Your task to perform on an android device: all mails in gmail Image 0: 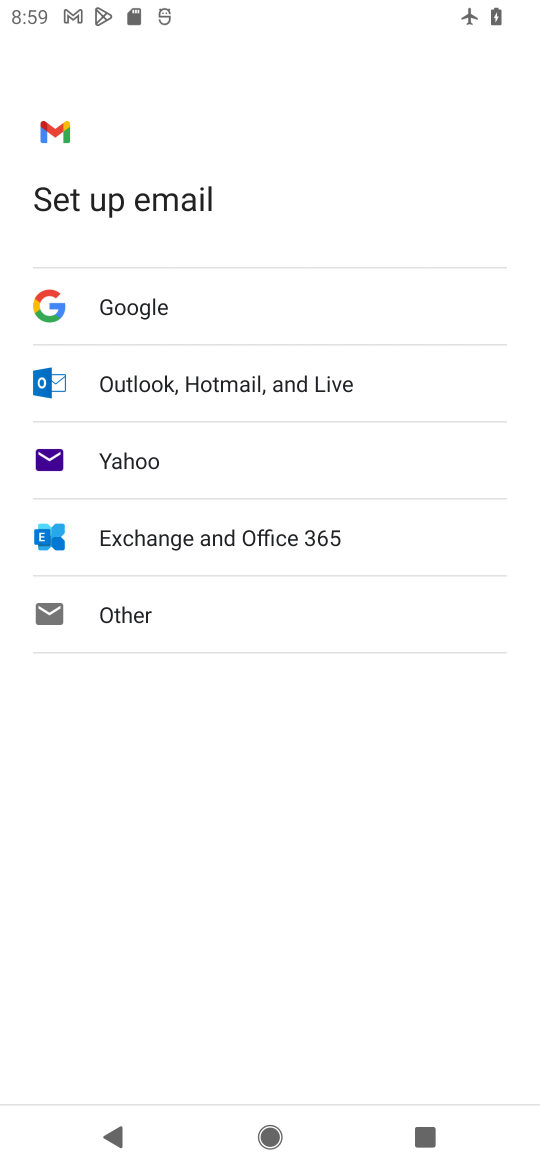
Step 0: press home button
Your task to perform on an android device: all mails in gmail Image 1: 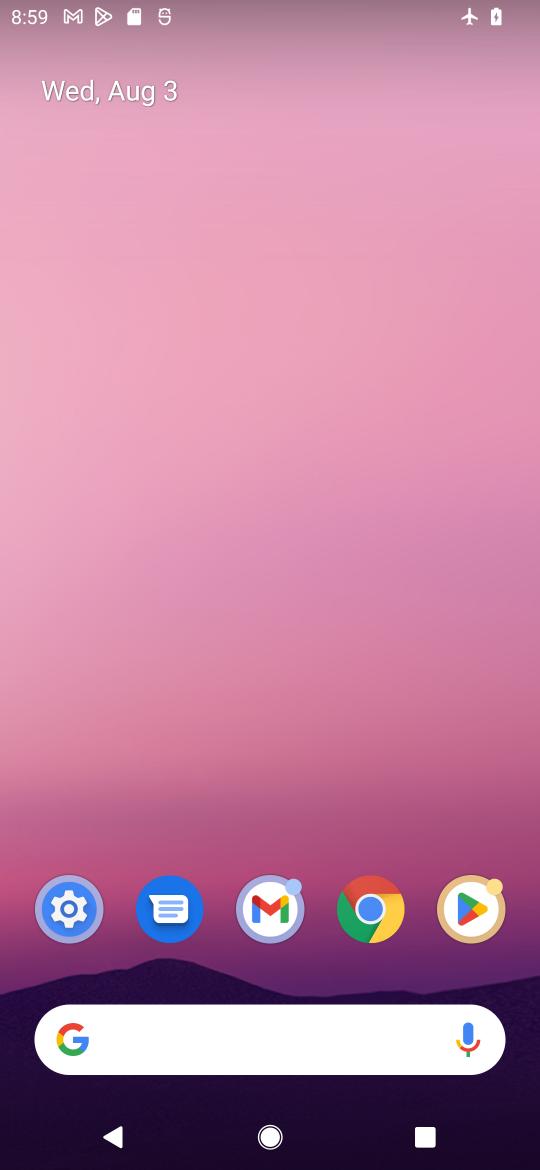
Step 1: drag from (307, 800) to (342, 322)
Your task to perform on an android device: all mails in gmail Image 2: 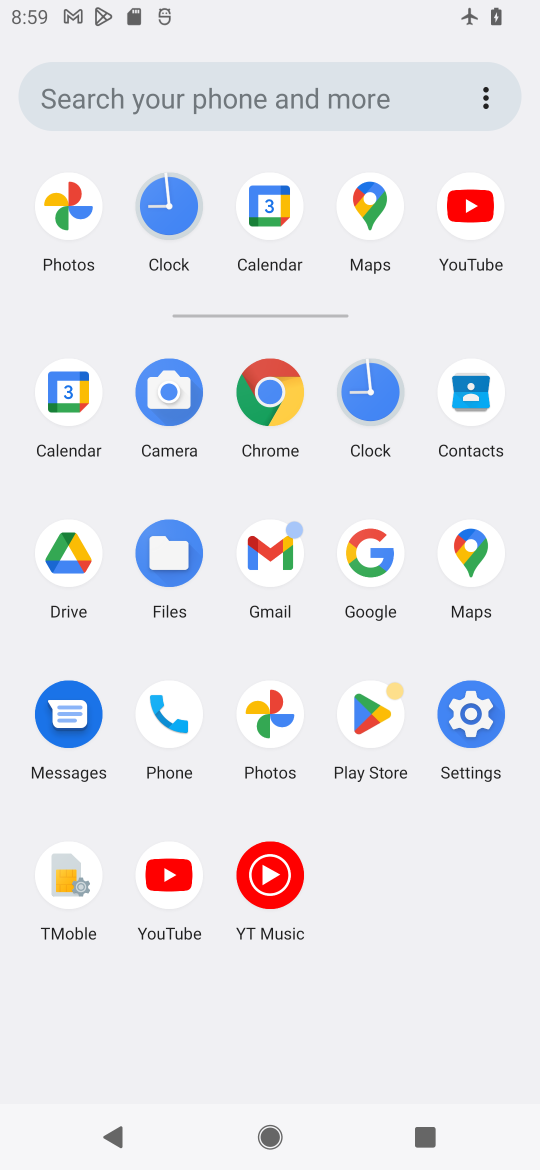
Step 2: click (277, 575)
Your task to perform on an android device: all mails in gmail Image 3: 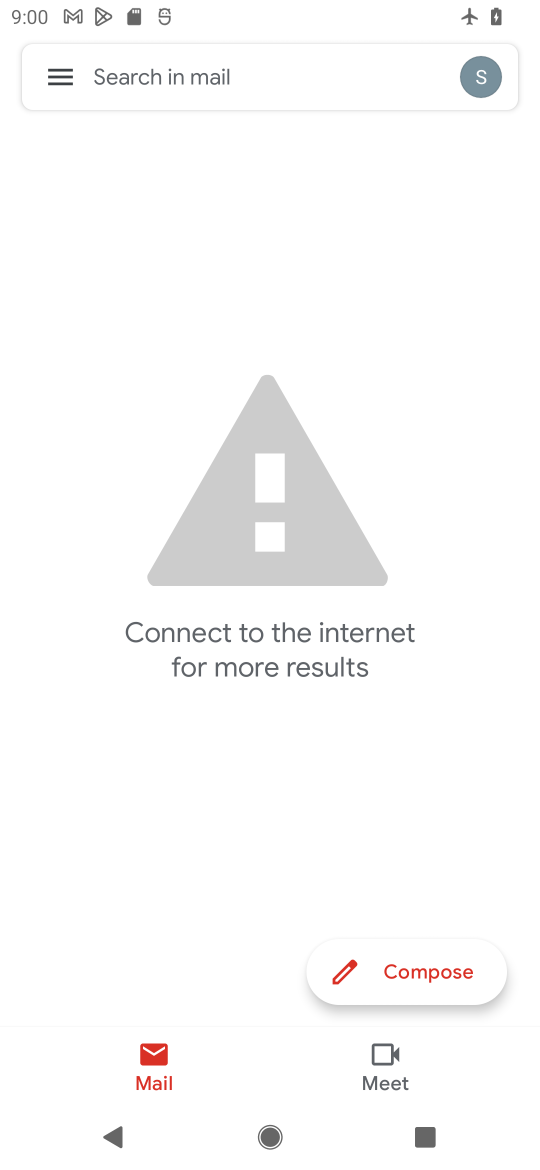
Step 3: click (62, 74)
Your task to perform on an android device: all mails in gmail Image 4: 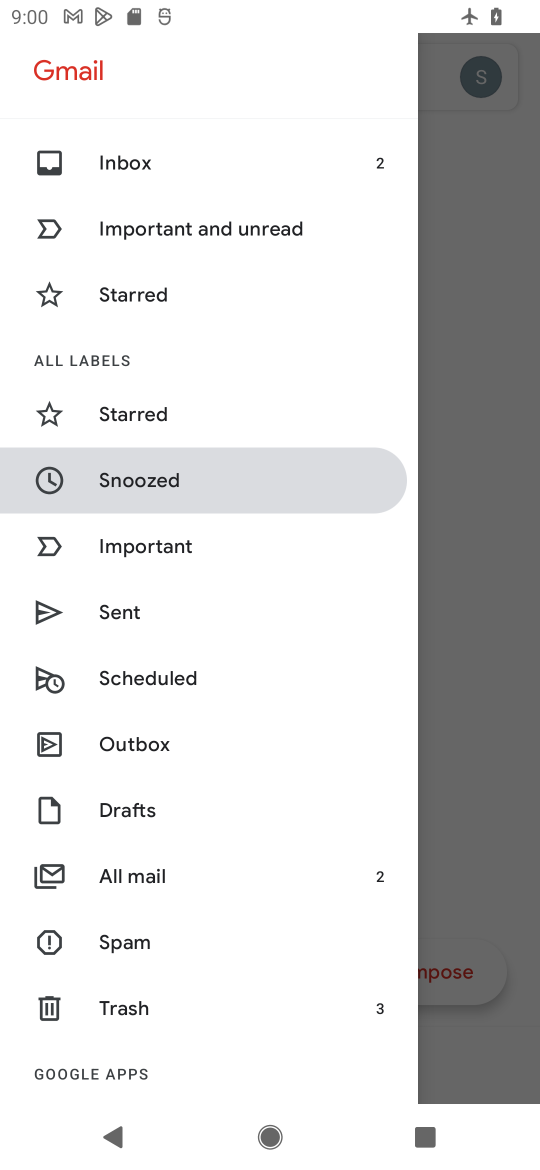
Step 4: drag from (296, 727) to (301, 522)
Your task to perform on an android device: all mails in gmail Image 5: 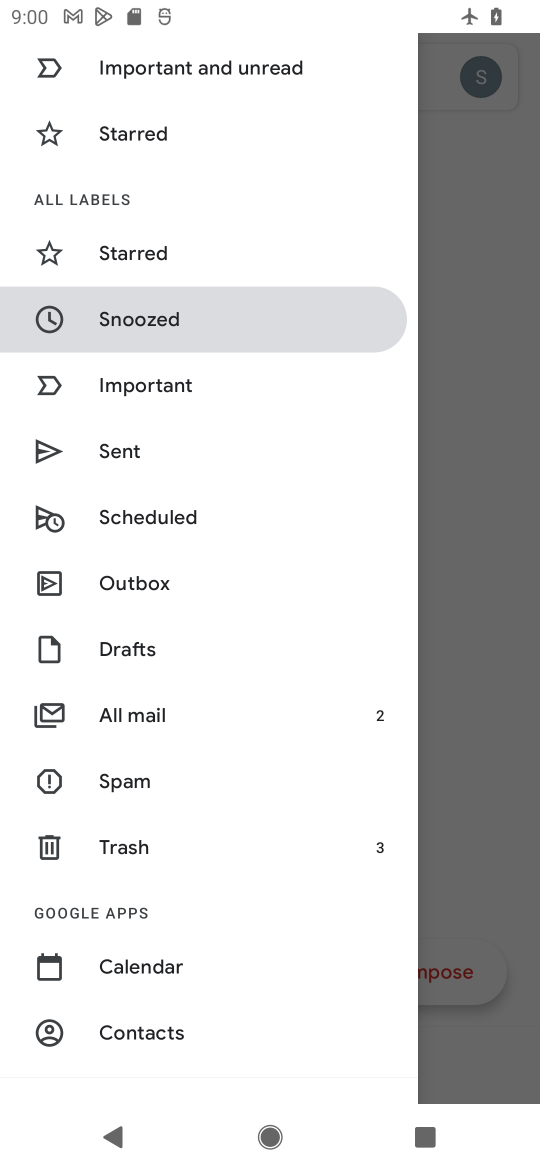
Step 5: drag from (244, 721) to (255, 522)
Your task to perform on an android device: all mails in gmail Image 6: 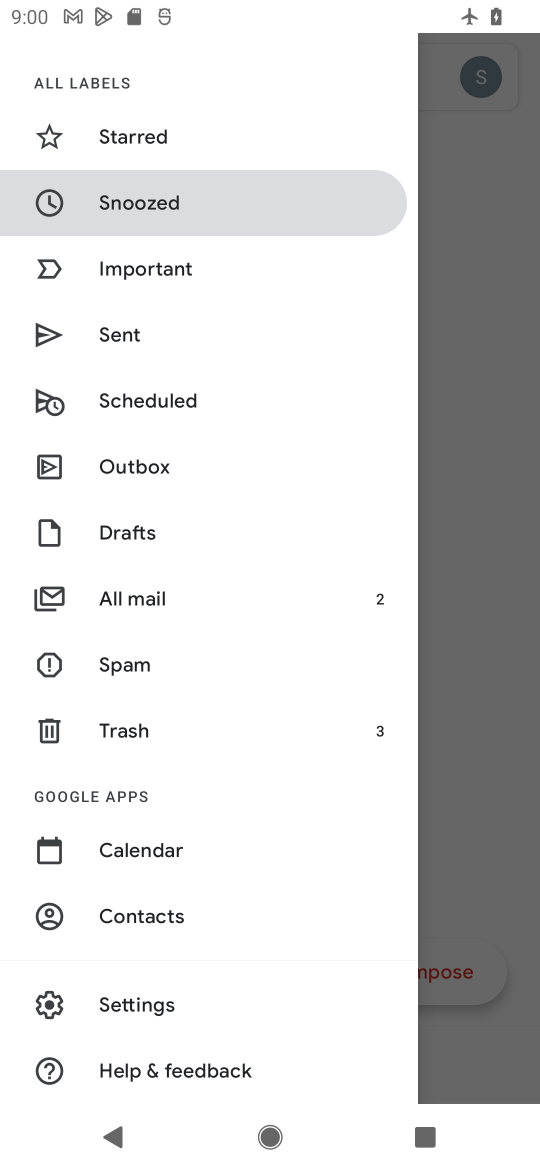
Step 6: drag from (255, 732) to (267, 543)
Your task to perform on an android device: all mails in gmail Image 7: 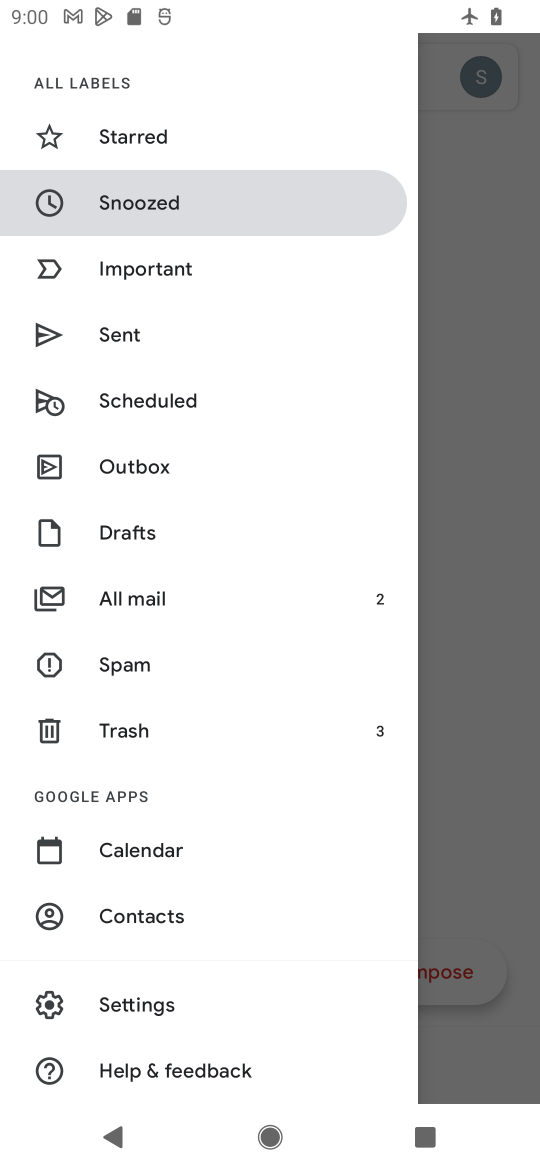
Step 7: click (158, 593)
Your task to perform on an android device: all mails in gmail Image 8: 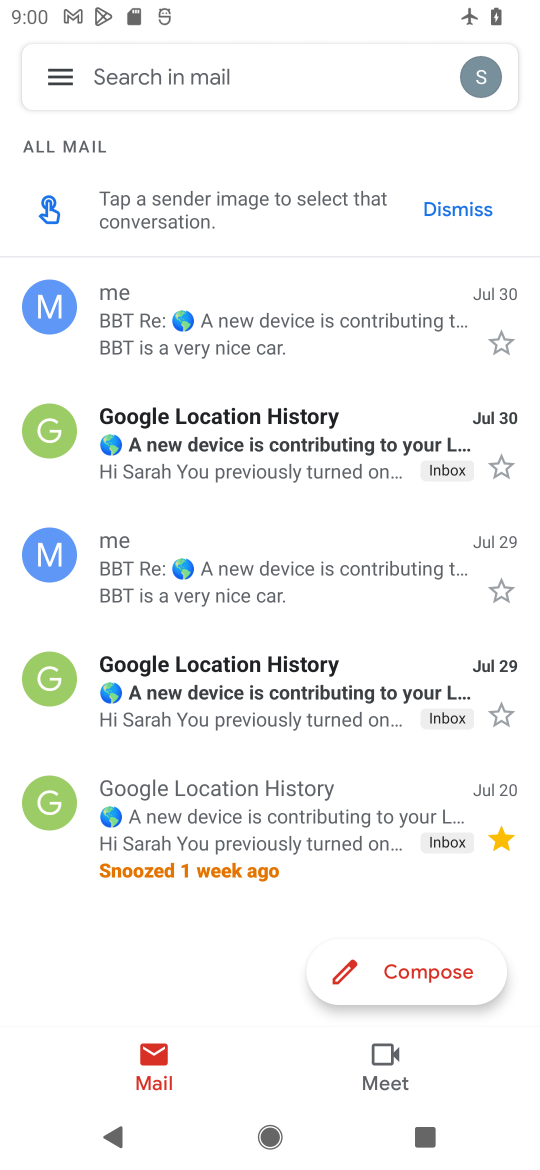
Step 8: task complete